Your task to perform on an android device: create a new album in the google photos Image 0: 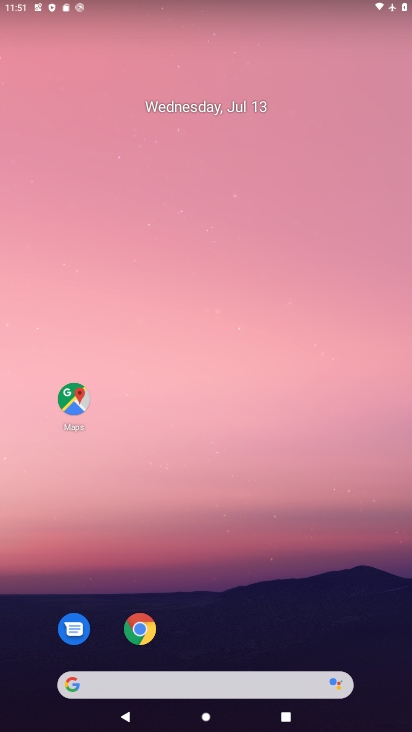
Step 0: drag from (251, 616) to (186, 164)
Your task to perform on an android device: create a new album in the google photos Image 1: 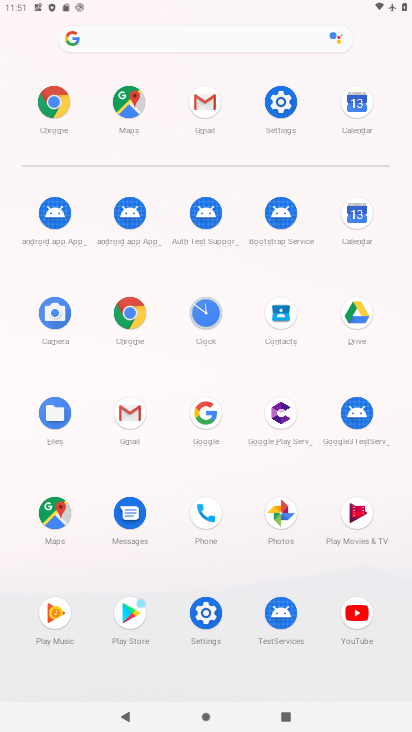
Step 1: click (278, 504)
Your task to perform on an android device: create a new album in the google photos Image 2: 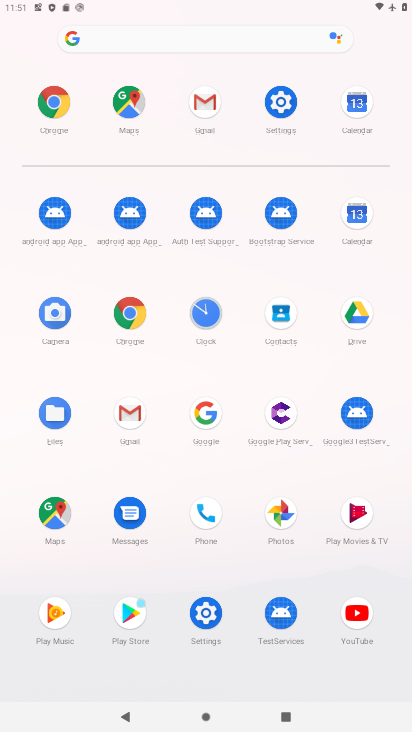
Step 2: click (278, 504)
Your task to perform on an android device: create a new album in the google photos Image 3: 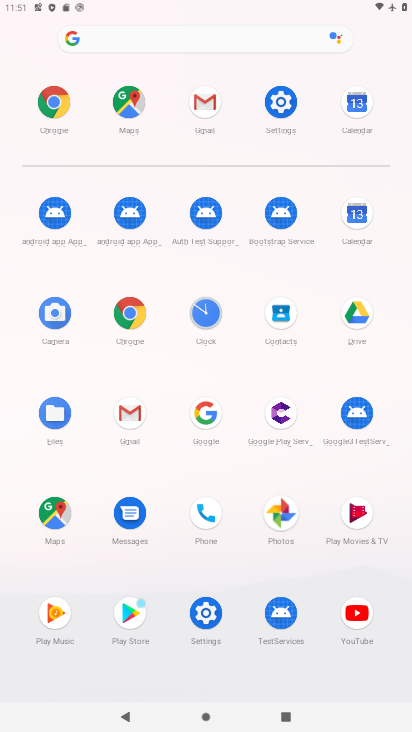
Step 3: click (278, 503)
Your task to perform on an android device: create a new album in the google photos Image 4: 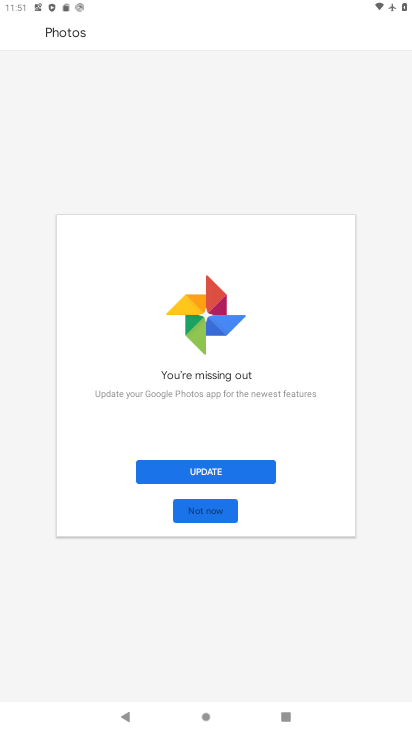
Step 4: click (208, 500)
Your task to perform on an android device: create a new album in the google photos Image 5: 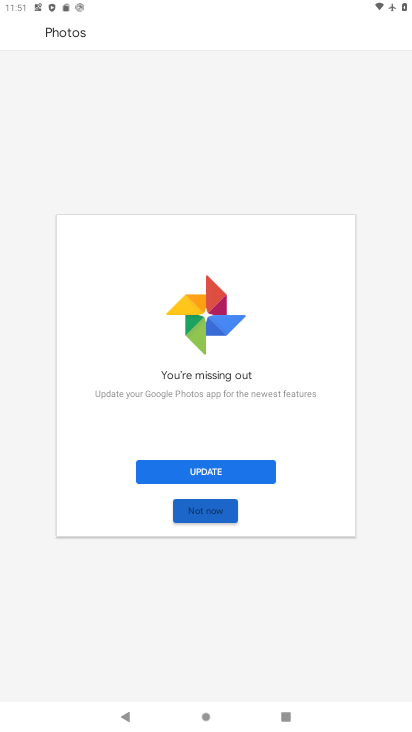
Step 5: click (208, 499)
Your task to perform on an android device: create a new album in the google photos Image 6: 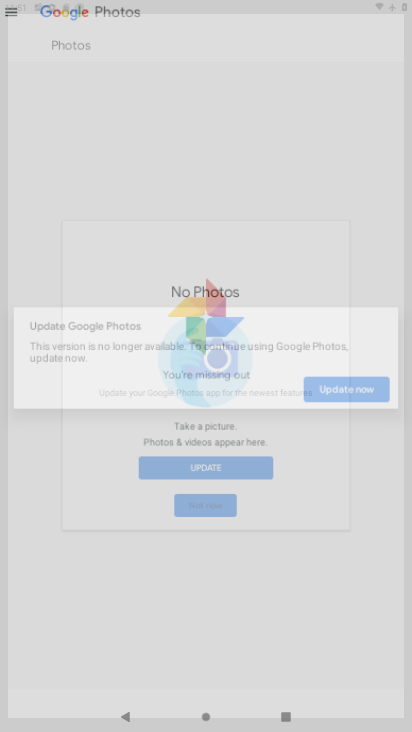
Step 6: click (216, 498)
Your task to perform on an android device: create a new album in the google photos Image 7: 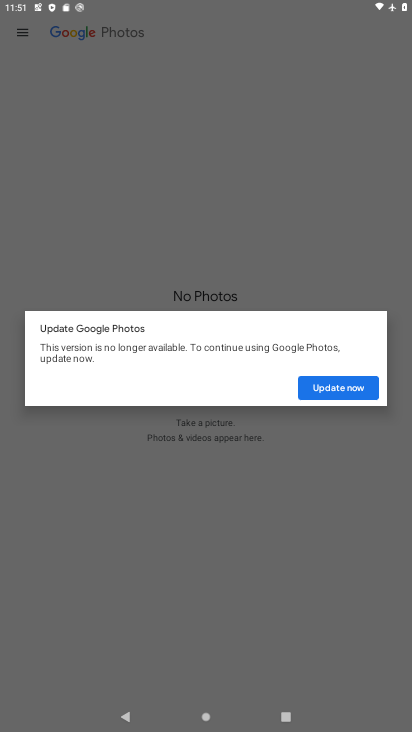
Step 7: click (280, 274)
Your task to perform on an android device: create a new album in the google photos Image 8: 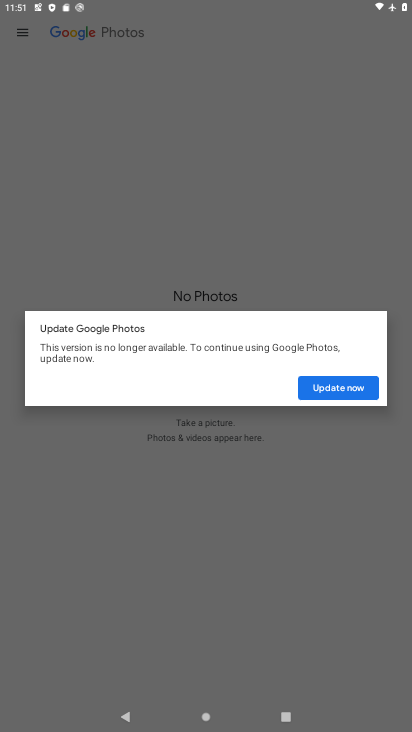
Step 8: click (295, 199)
Your task to perform on an android device: create a new album in the google photos Image 9: 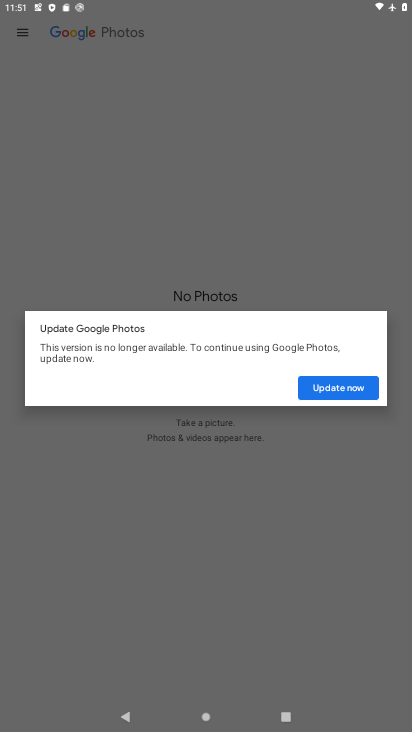
Step 9: click (295, 199)
Your task to perform on an android device: create a new album in the google photos Image 10: 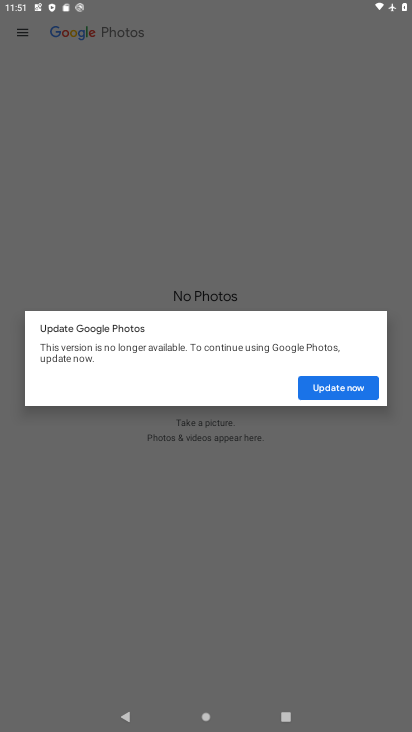
Step 10: click (299, 198)
Your task to perform on an android device: create a new album in the google photos Image 11: 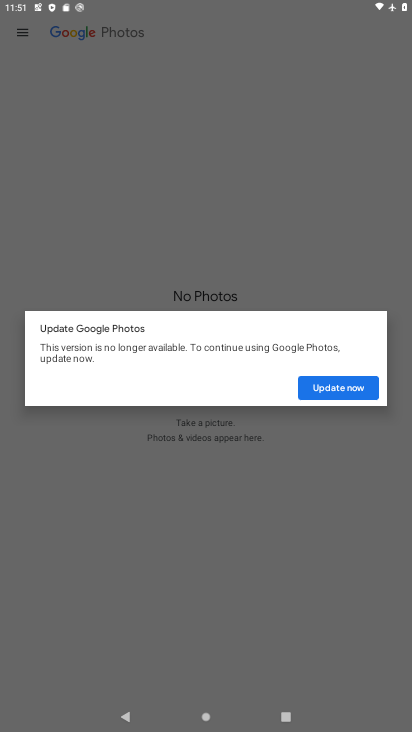
Step 11: task complete